Your task to perform on an android device: Open settings Image 0: 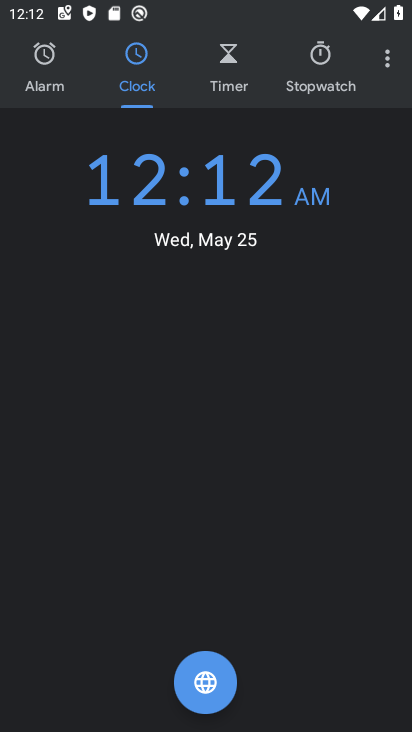
Step 0: press home button
Your task to perform on an android device: Open settings Image 1: 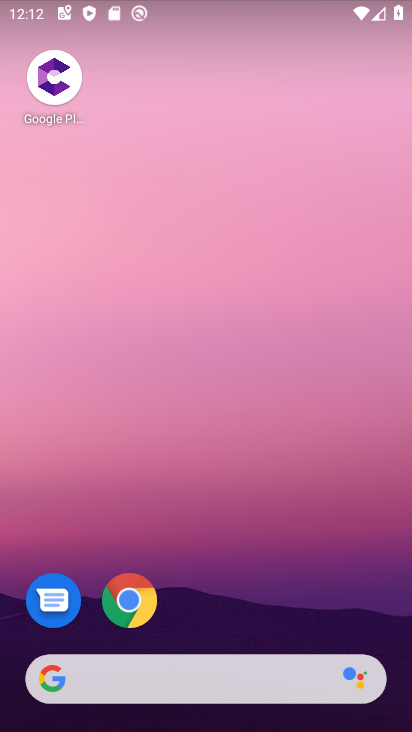
Step 1: drag from (249, 586) to (219, 20)
Your task to perform on an android device: Open settings Image 2: 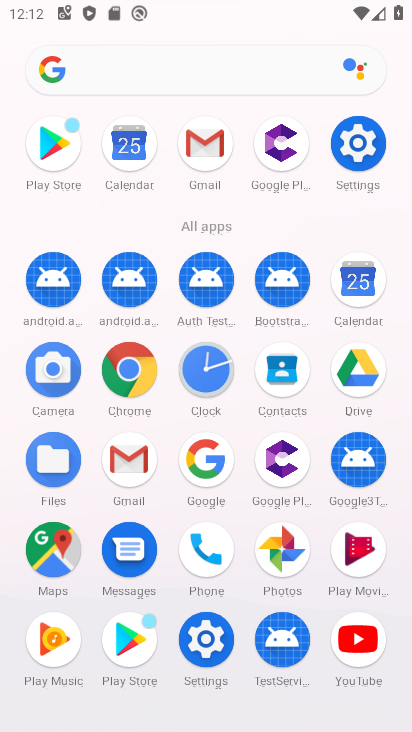
Step 2: click (208, 659)
Your task to perform on an android device: Open settings Image 3: 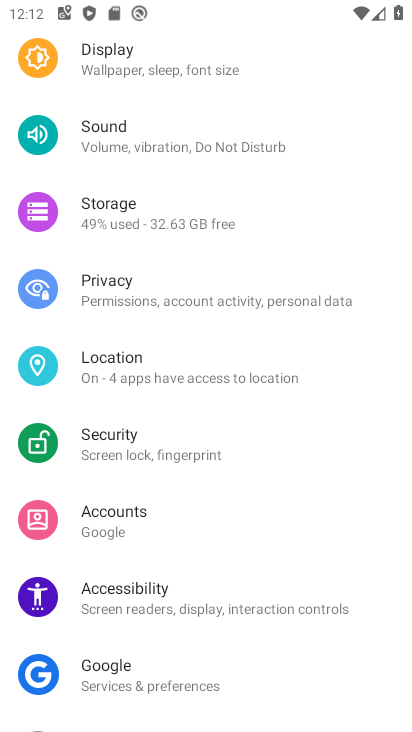
Step 3: task complete